Your task to perform on an android device: set default search engine in the chrome app Image 0: 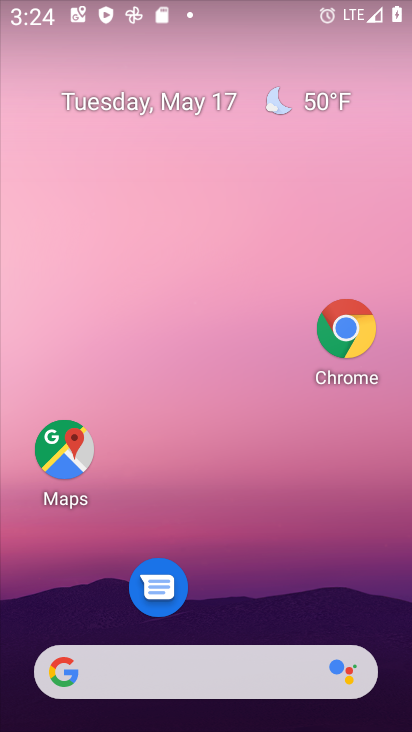
Step 0: click (349, 338)
Your task to perform on an android device: set default search engine in the chrome app Image 1: 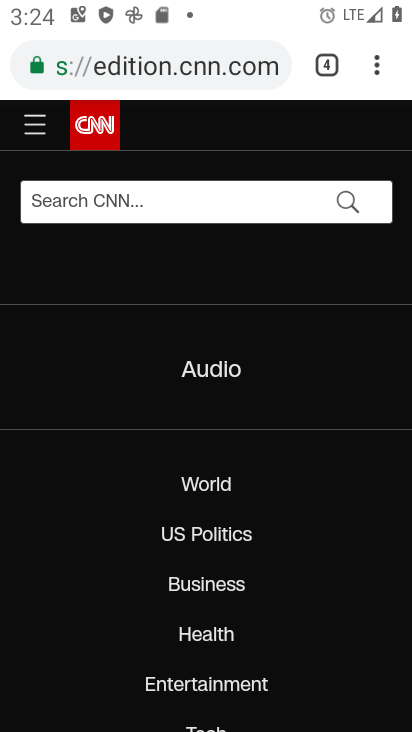
Step 1: click (380, 63)
Your task to perform on an android device: set default search engine in the chrome app Image 2: 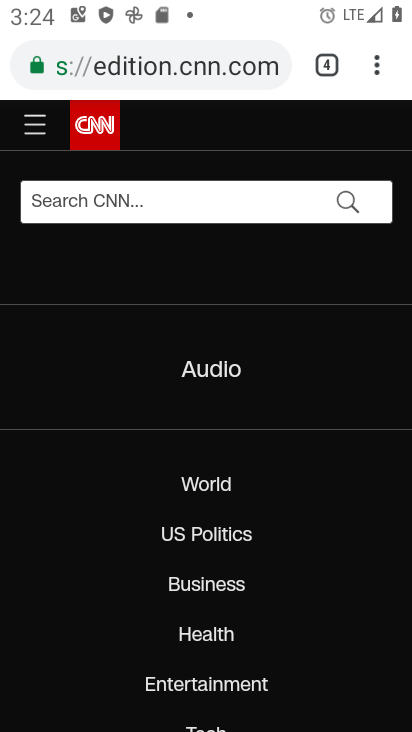
Step 2: click (371, 65)
Your task to perform on an android device: set default search engine in the chrome app Image 3: 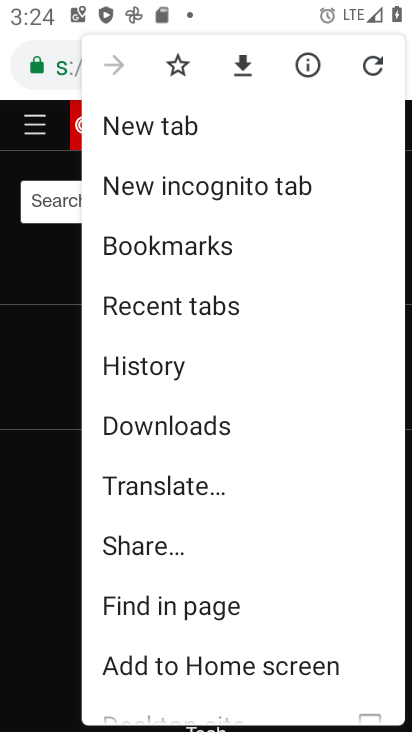
Step 3: drag from (151, 598) to (224, 371)
Your task to perform on an android device: set default search engine in the chrome app Image 4: 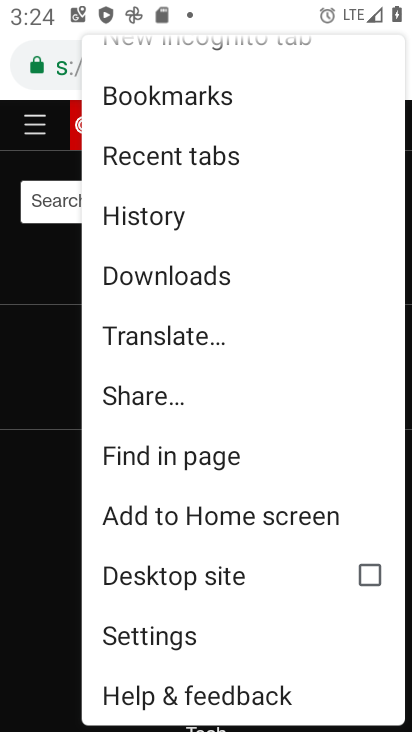
Step 4: click (176, 645)
Your task to perform on an android device: set default search engine in the chrome app Image 5: 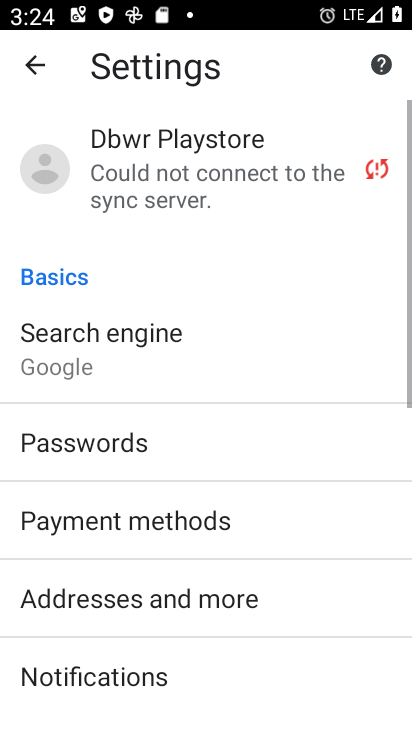
Step 5: click (207, 364)
Your task to perform on an android device: set default search engine in the chrome app Image 6: 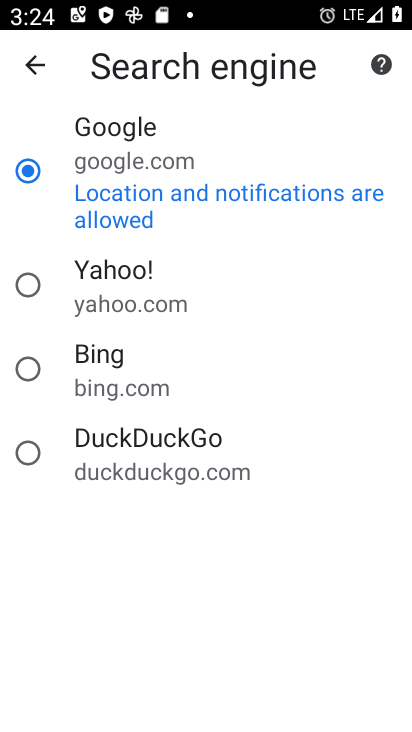
Step 6: click (189, 319)
Your task to perform on an android device: set default search engine in the chrome app Image 7: 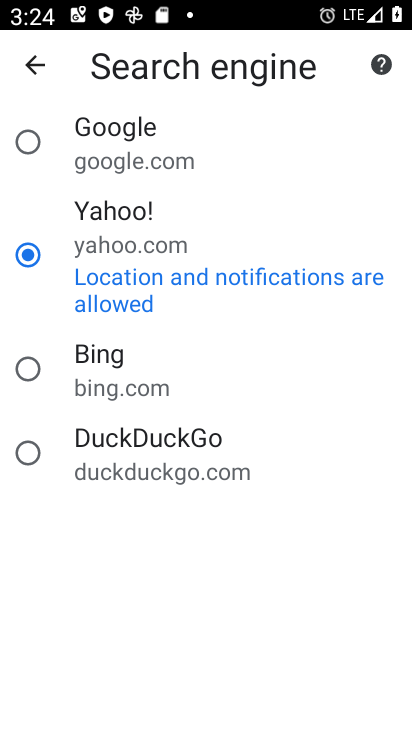
Step 7: task complete